Your task to perform on an android device: turn off javascript in the chrome app Image 0: 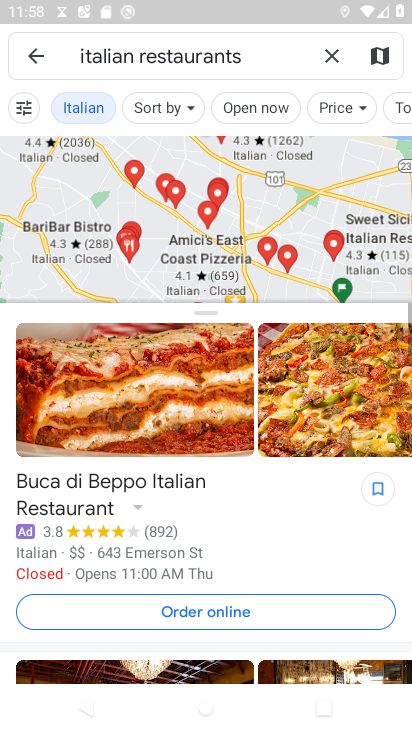
Step 0: click (145, 602)
Your task to perform on an android device: turn off javascript in the chrome app Image 1: 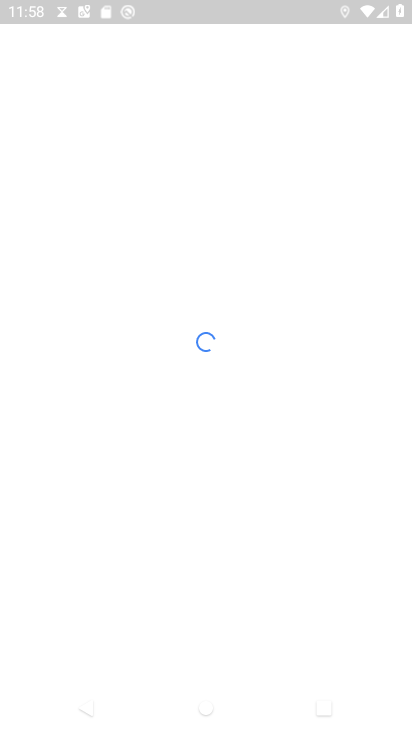
Step 1: press home button
Your task to perform on an android device: turn off javascript in the chrome app Image 2: 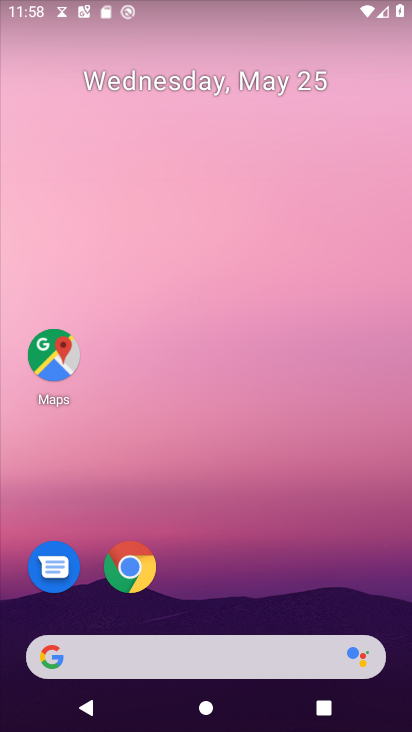
Step 2: click (149, 567)
Your task to perform on an android device: turn off javascript in the chrome app Image 3: 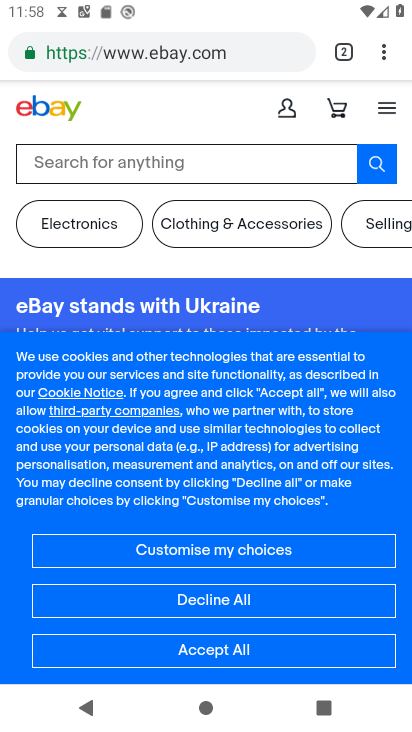
Step 3: click (379, 52)
Your task to perform on an android device: turn off javascript in the chrome app Image 4: 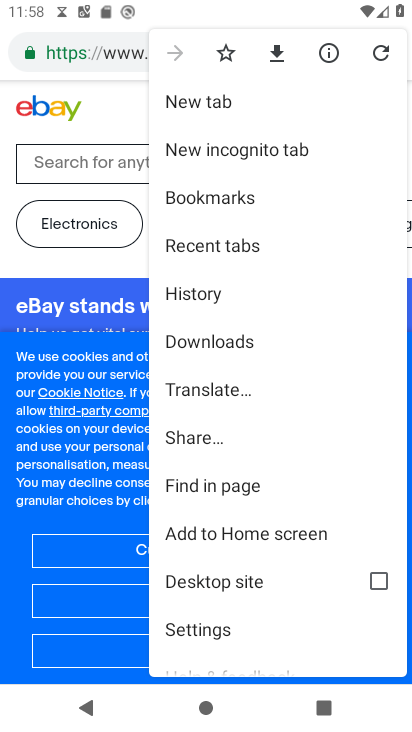
Step 4: click (195, 614)
Your task to perform on an android device: turn off javascript in the chrome app Image 5: 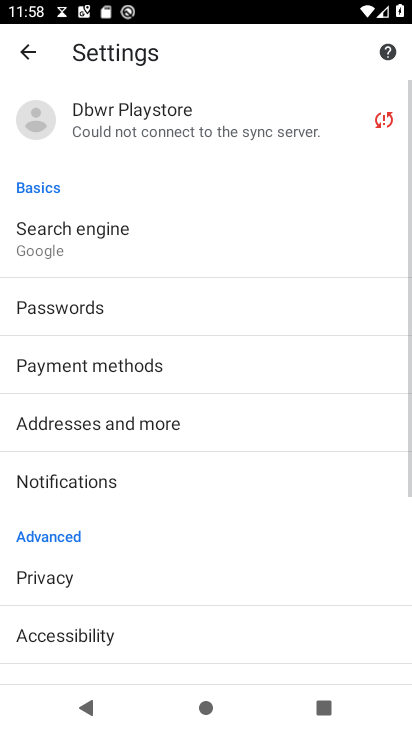
Step 5: drag from (154, 589) to (149, 100)
Your task to perform on an android device: turn off javascript in the chrome app Image 6: 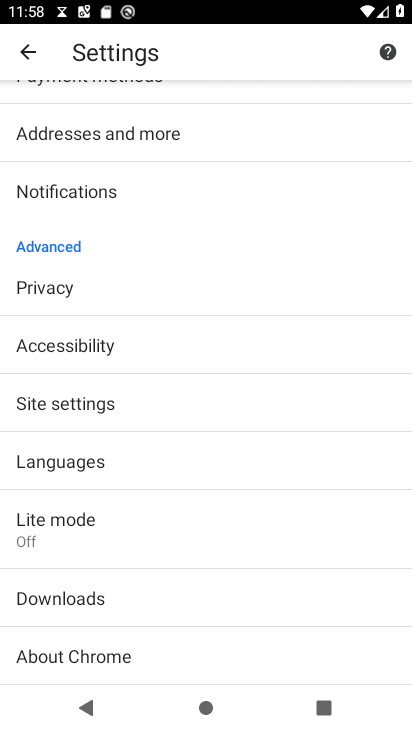
Step 6: click (116, 383)
Your task to perform on an android device: turn off javascript in the chrome app Image 7: 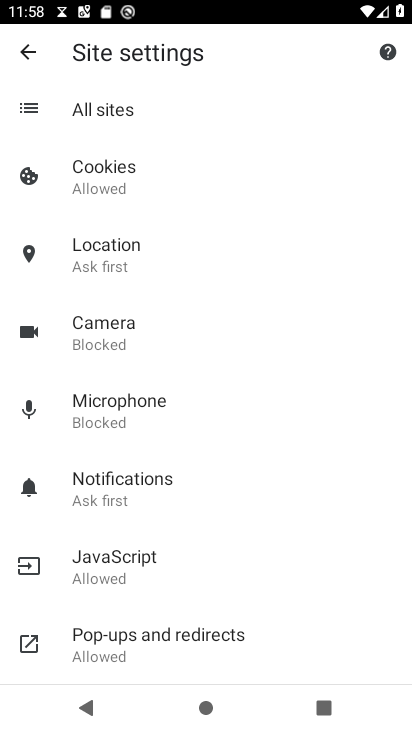
Step 7: click (152, 559)
Your task to perform on an android device: turn off javascript in the chrome app Image 8: 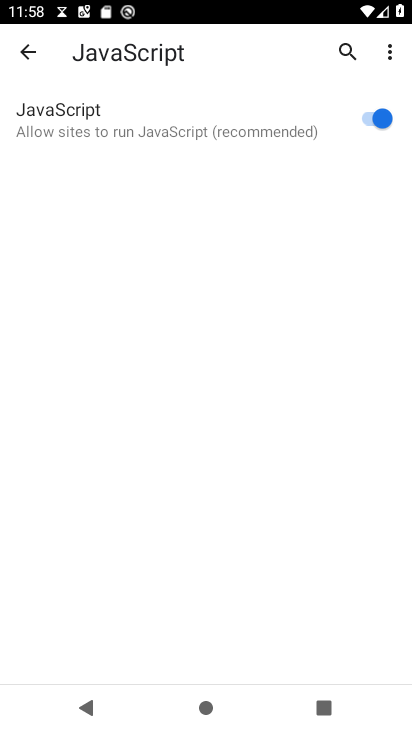
Step 8: click (359, 113)
Your task to perform on an android device: turn off javascript in the chrome app Image 9: 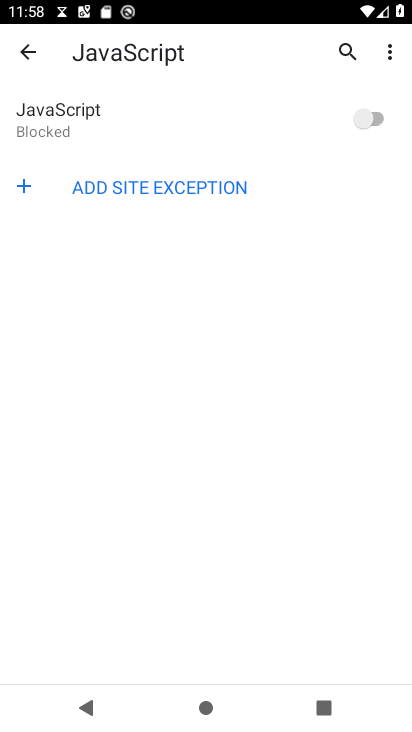
Step 9: task complete